Your task to perform on an android device: What's the speed of light? Image 0: 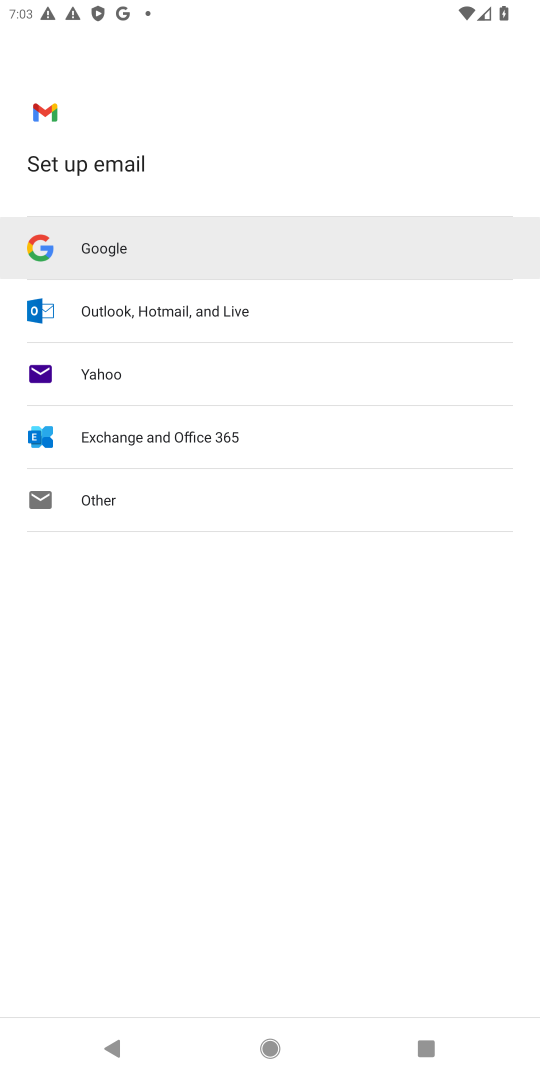
Step 0: press home button
Your task to perform on an android device: What's the speed of light? Image 1: 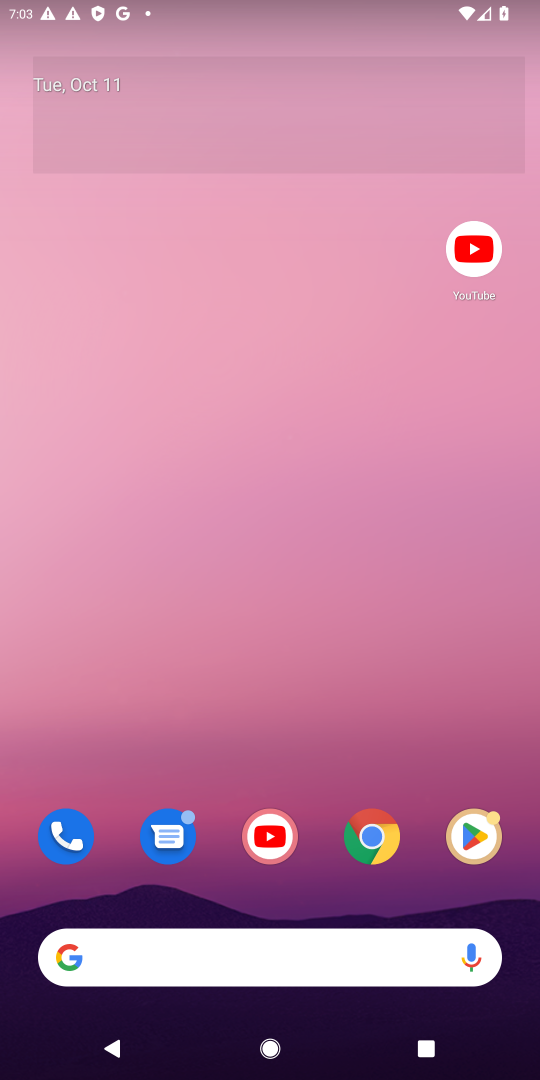
Step 1: click (370, 839)
Your task to perform on an android device: What's the speed of light? Image 2: 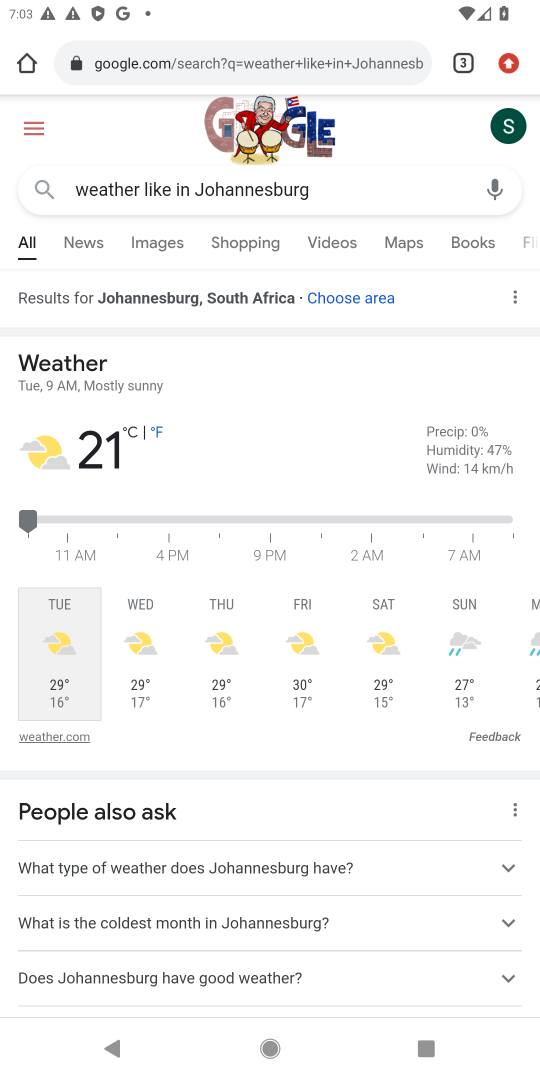
Step 2: click (389, 56)
Your task to perform on an android device: What's the speed of light? Image 3: 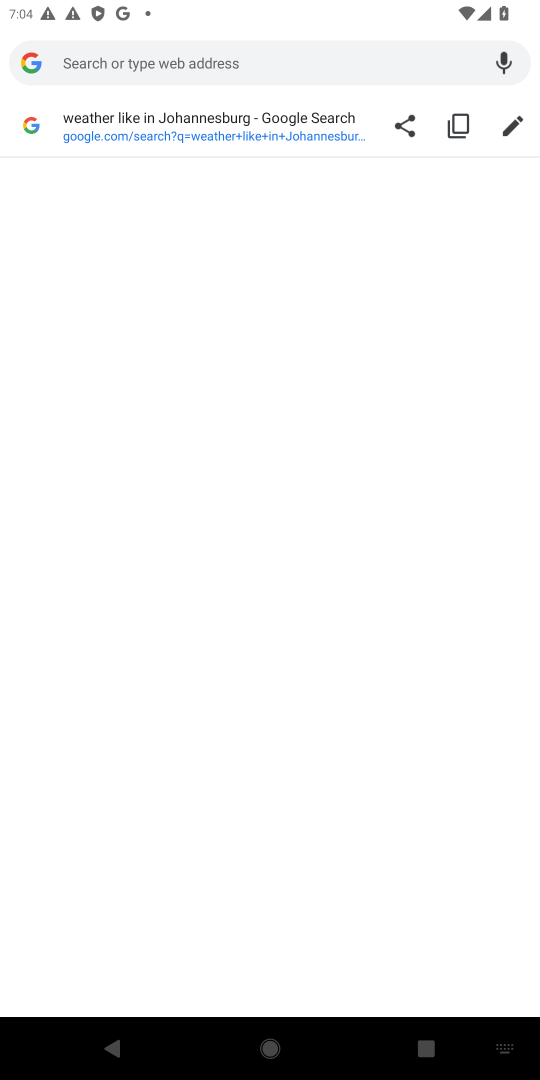
Step 3: type "What's the speed of light"
Your task to perform on an android device: What's the speed of light? Image 4: 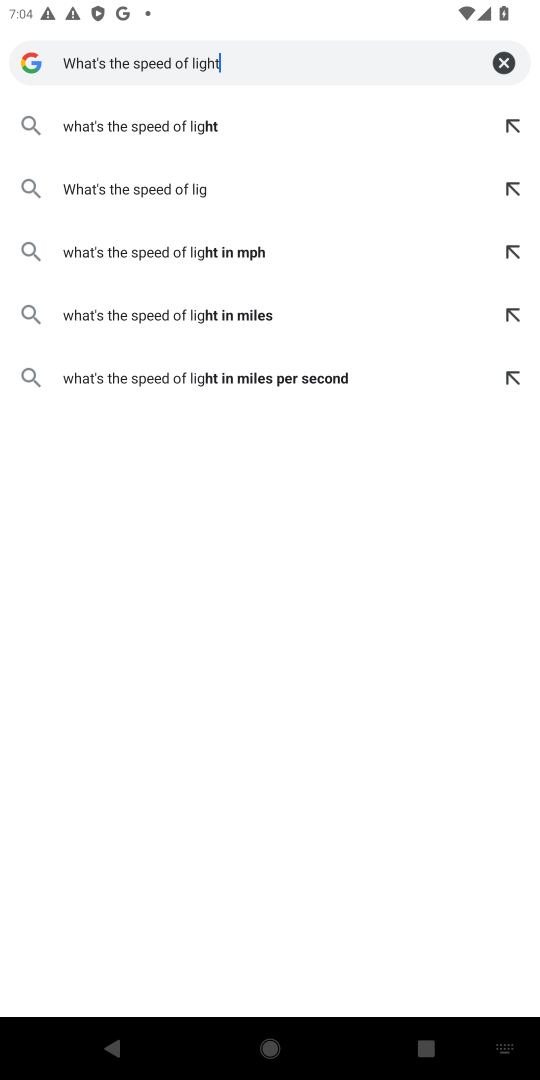
Step 4: press enter
Your task to perform on an android device: What's the speed of light? Image 5: 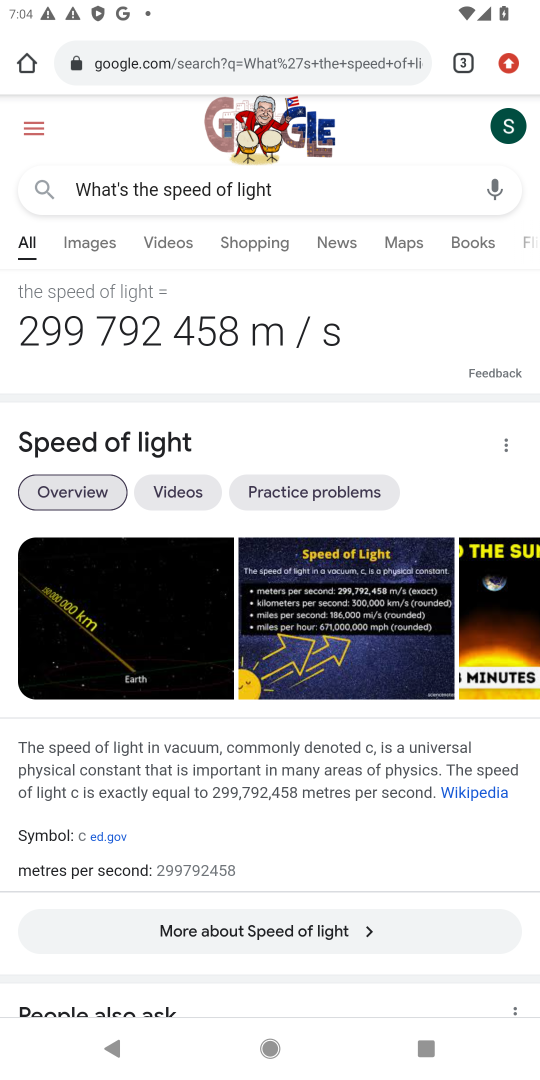
Step 5: drag from (263, 697) to (395, 199)
Your task to perform on an android device: What's the speed of light? Image 6: 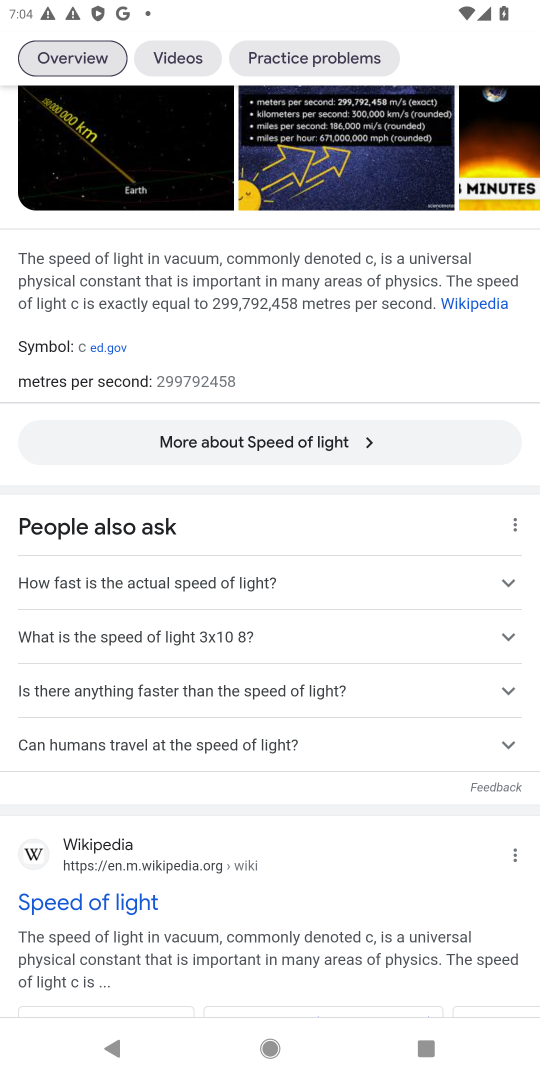
Step 6: click (129, 899)
Your task to perform on an android device: What's the speed of light? Image 7: 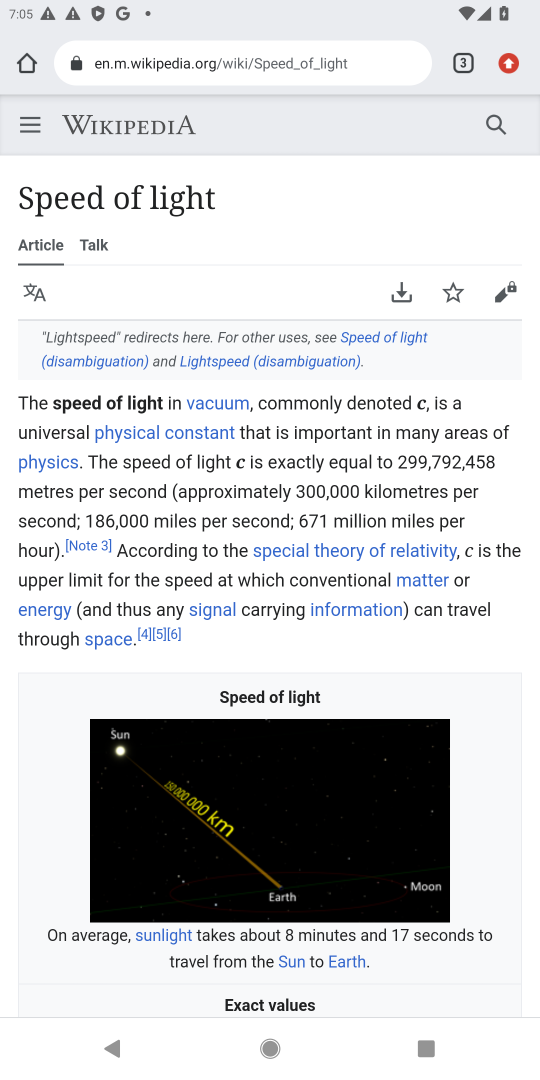
Step 7: task complete